Your task to perform on an android device: change the clock display to analog Image 0: 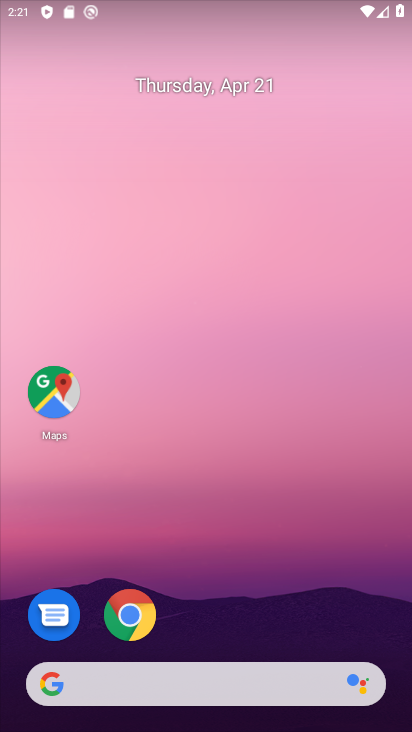
Step 0: click (296, 5)
Your task to perform on an android device: change the clock display to analog Image 1: 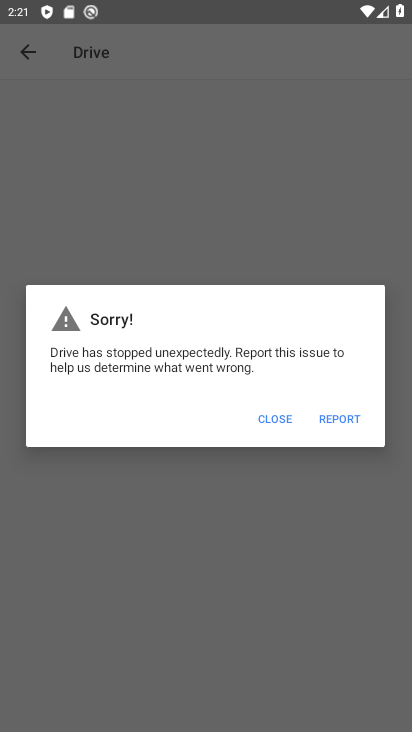
Step 1: press back button
Your task to perform on an android device: change the clock display to analog Image 2: 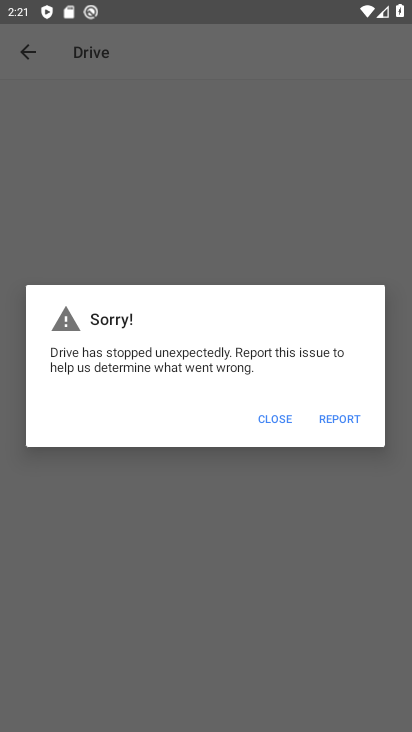
Step 2: press back button
Your task to perform on an android device: change the clock display to analog Image 3: 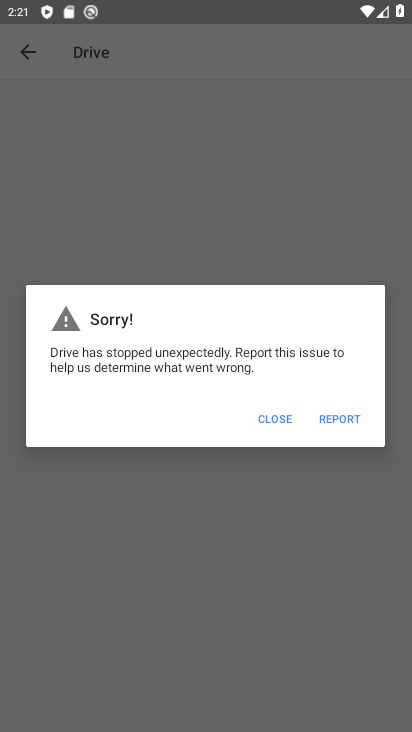
Step 3: press home button
Your task to perform on an android device: change the clock display to analog Image 4: 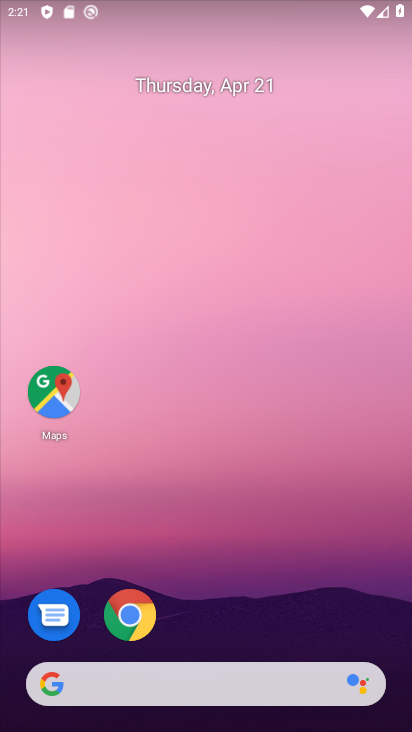
Step 4: drag from (237, 573) to (309, 12)
Your task to perform on an android device: change the clock display to analog Image 5: 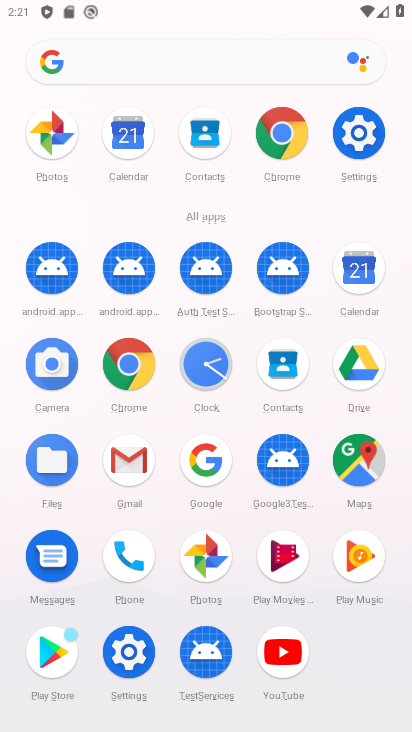
Step 5: click (206, 363)
Your task to perform on an android device: change the clock display to analog Image 6: 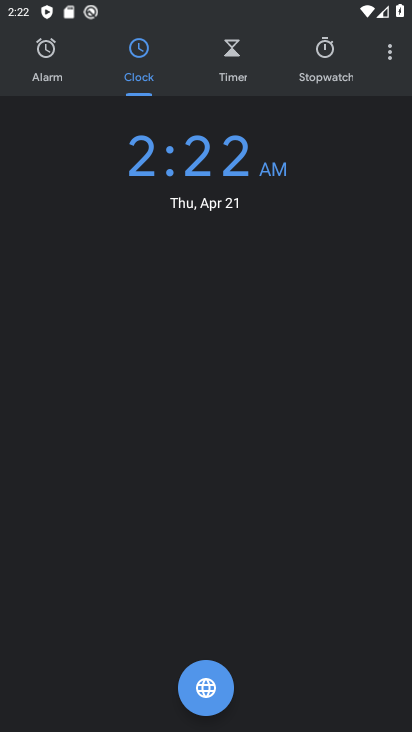
Step 6: click (386, 53)
Your task to perform on an android device: change the clock display to analog Image 7: 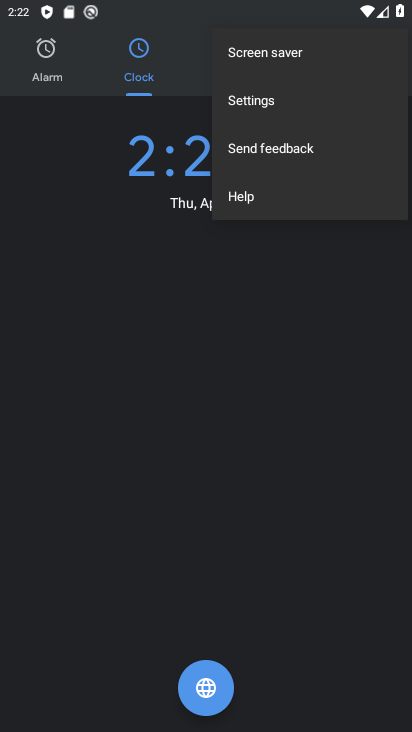
Step 7: click (259, 108)
Your task to perform on an android device: change the clock display to analog Image 8: 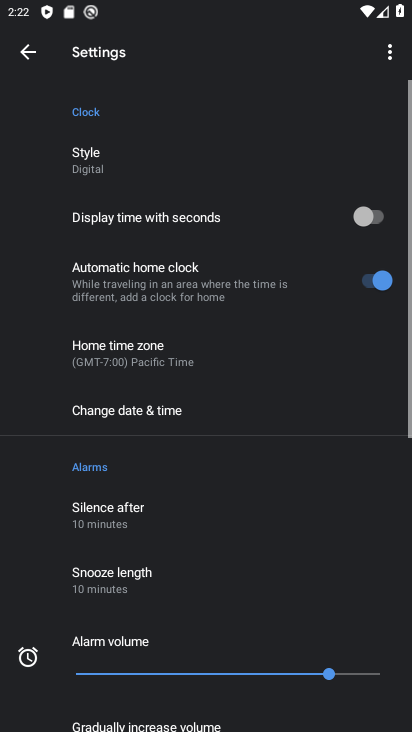
Step 8: click (96, 165)
Your task to perform on an android device: change the clock display to analog Image 9: 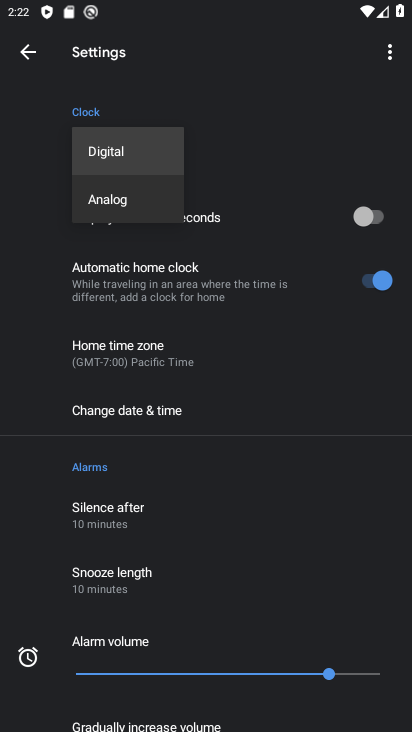
Step 9: click (126, 196)
Your task to perform on an android device: change the clock display to analog Image 10: 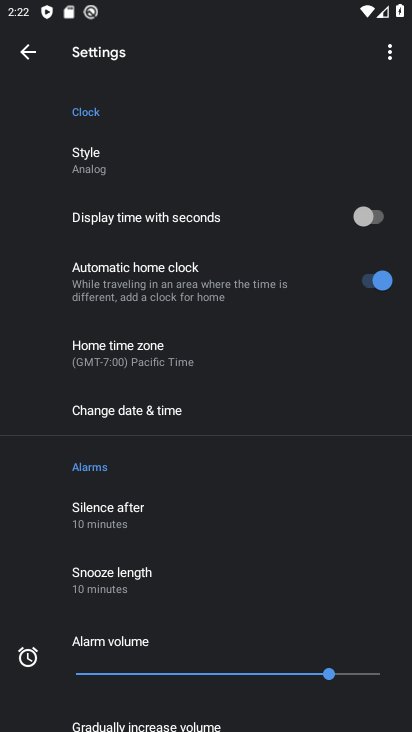
Step 10: task complete